Your task to perform on an android device: change the clock display to analog Image 0: 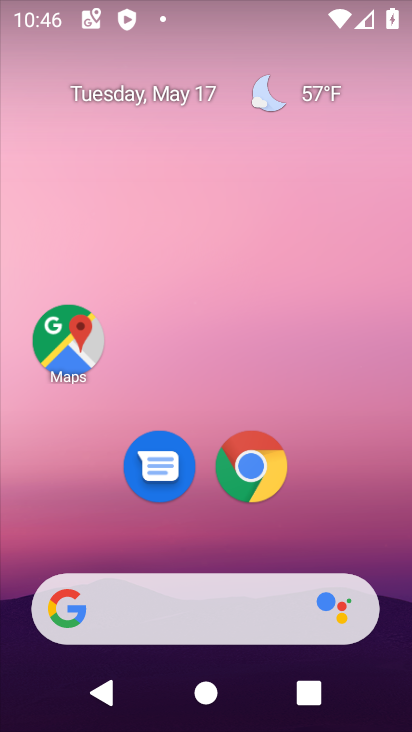
Step 0: drag from (231, 569) to (190, 10)
Your task to perform on an android device: change the clock display to analog Image 1: 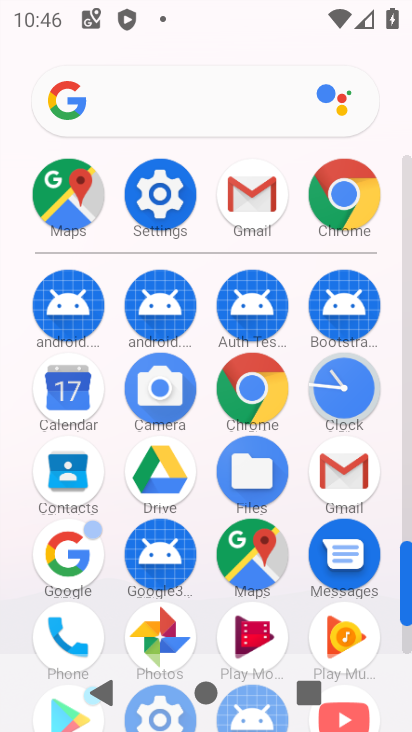
Step 1: click (340, 397)
Your task to perform on an android device: change the clock display to analog Image 2: 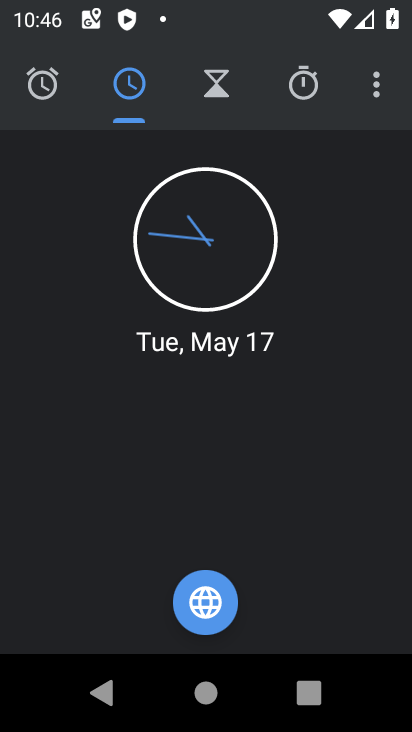
Step 2: click (377, 77)
Your task to perform on an android device: change the clock display to analog Image 3: 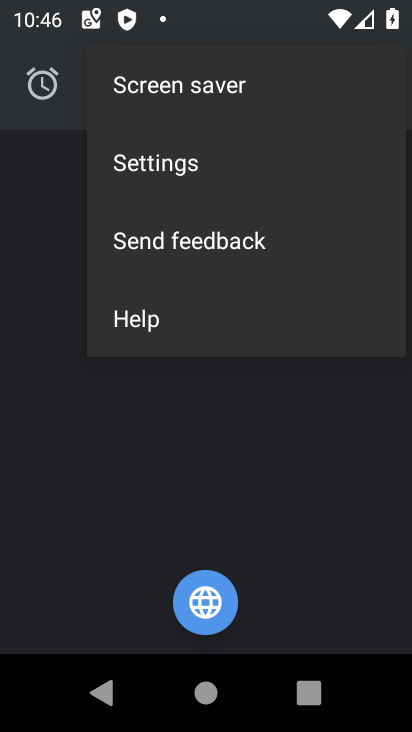
Step 3: click (174, 169)
Your task to perform on an android device: change the clock display to analog Image 4: 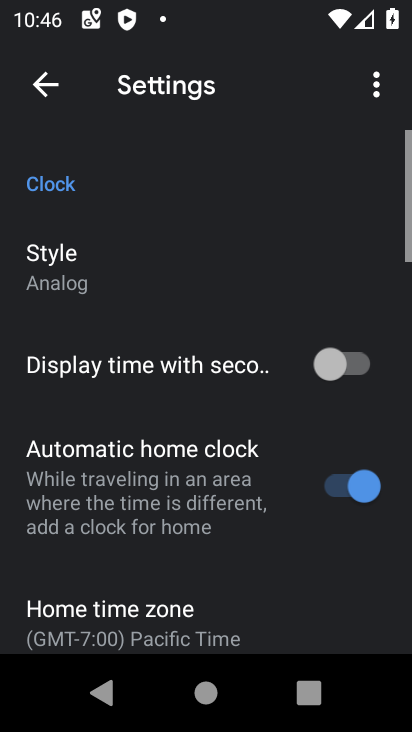
Step 4: click (100, 285)
Your task to perform on an android device: change the clock display to analog Image 5: 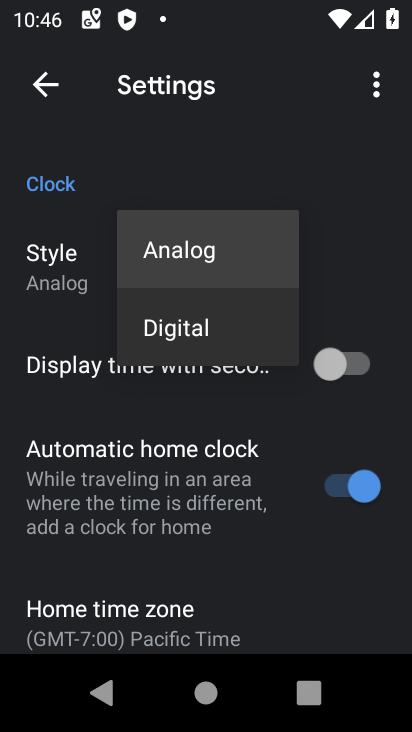
Step 5: click (170, 261)
Your task to perform on an android device: change the clock display to analog Image 6: 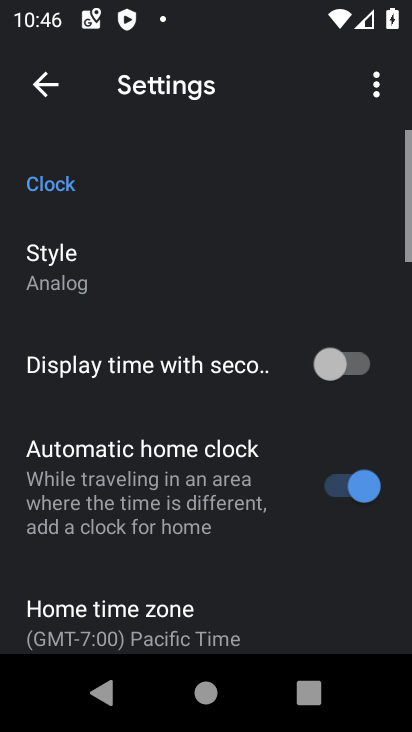
Step 6: task complete